Your task to perform on an android device: Open the calendar and show me this week's events? Image 0: 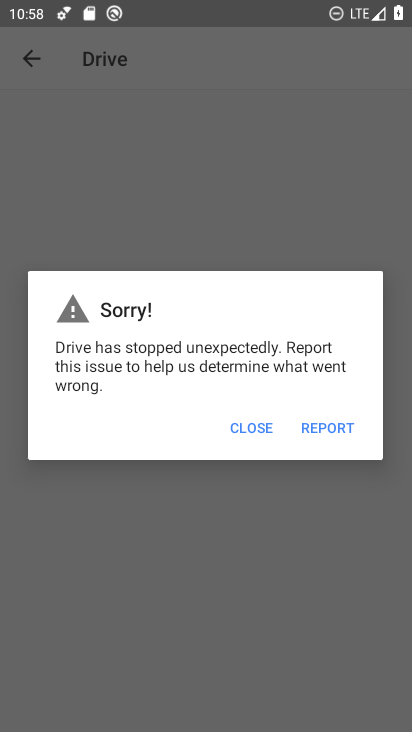
Step 0: press home button
Your task to perform on an android device: Open the calendar and show me this week's events? Image 1: 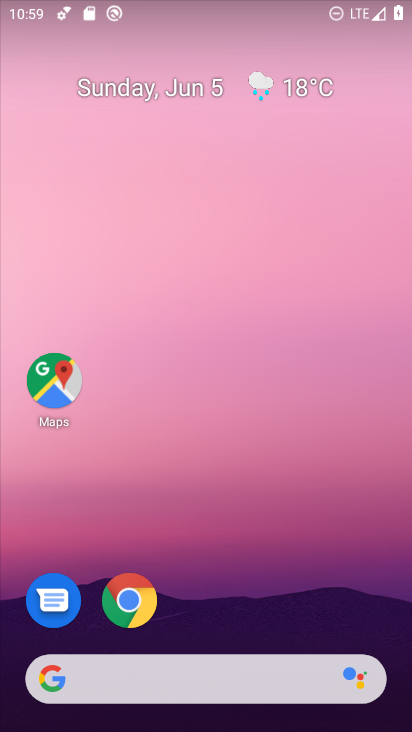
Step 1: drag from (194, 624) to (204, 168)
Your task to perform on an android device: Open the calendar and show me this week's events? Image 2: 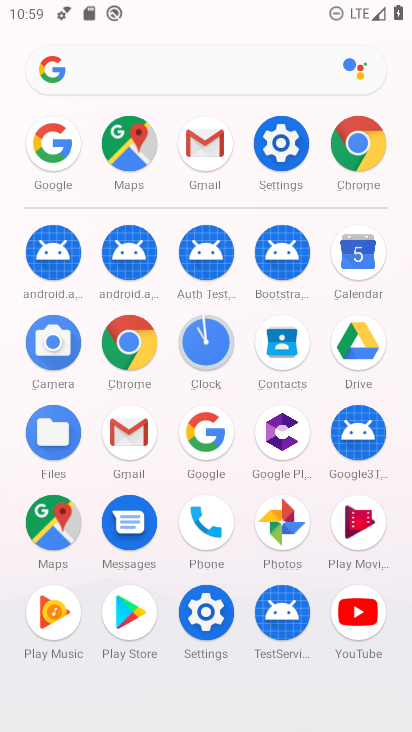
Step 2: click (357, 258)
Your task to perform on an android device: Open the calendar and show me this week's events? Image 3: 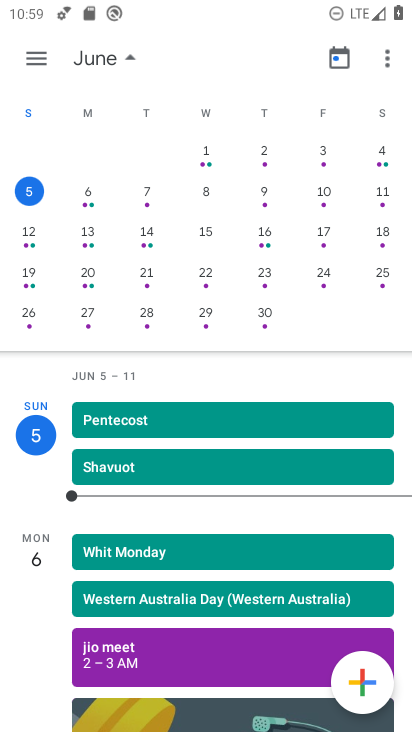
Step 3: click (44, 245)
Your task to perform on an android device: Open the calendar and show me this week's events? Image 4: 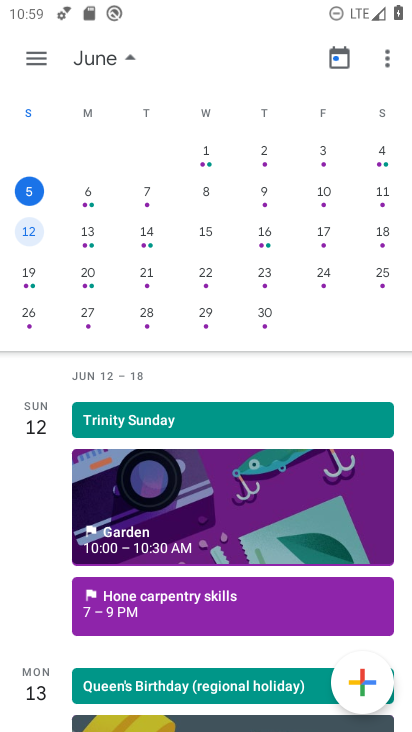
Step 4: click (85, 187)
Your task to perform on an android device: Open the calendar and show me this week's events? Image 5: 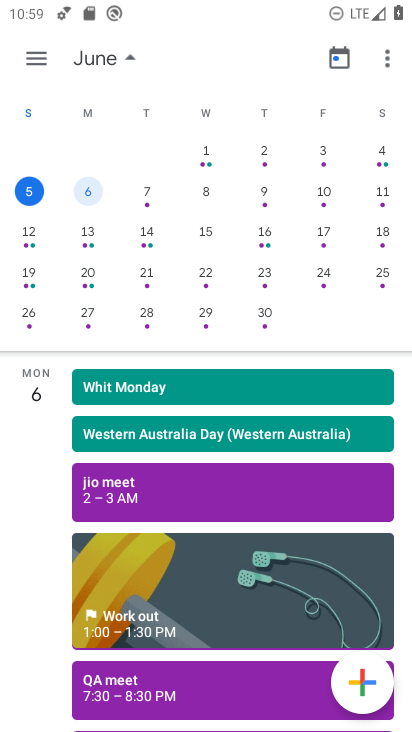
Step 5: task complete